Your task to perform on an android device: turn off location history Image 0: 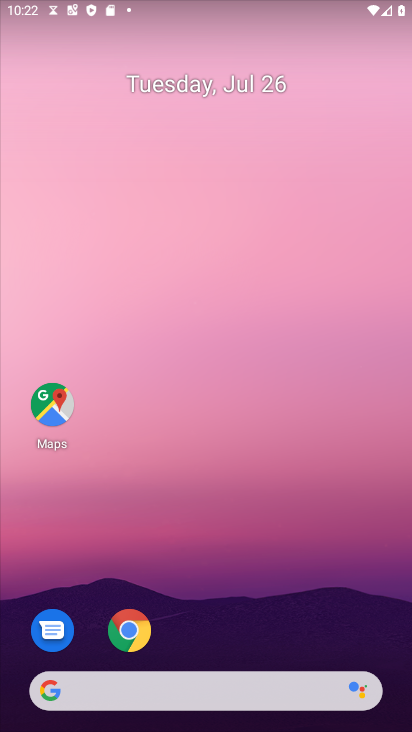
Step 0: drag from (153, 616) to (153, 29)
Your task to perform on an android device: turn off location history Image 1: 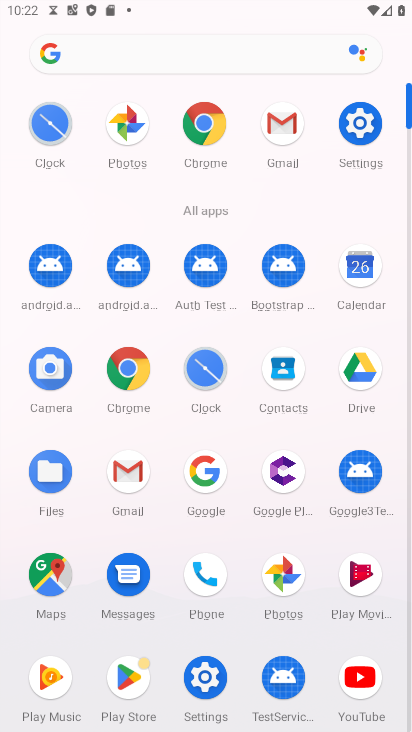
Step 1: click (360, 135)
Your task to perform on an android device: turn off location history Image 2: 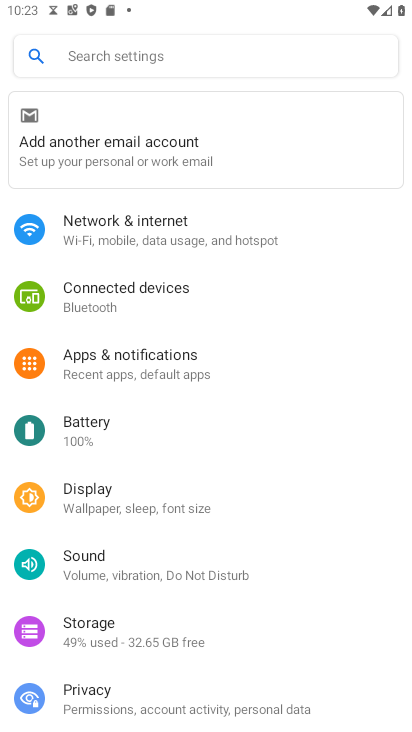
Step 2: drag from (122, 661) to (144, 459)
Your task to perform on an android device: turn off location history Image 3: 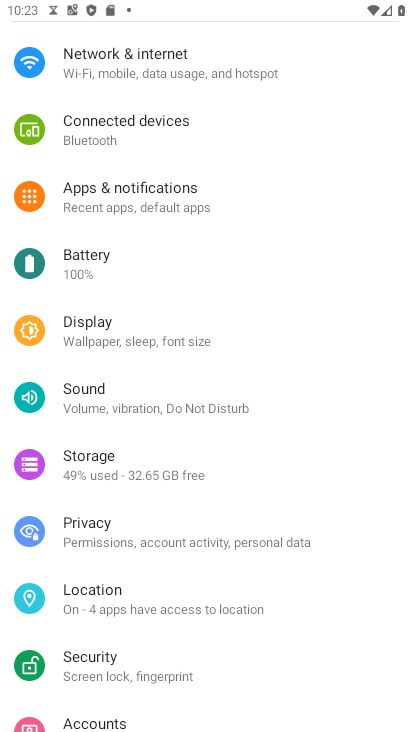
Step 3: click (75, 602)
Your task to perform on an android device: turn off location history Image 4: 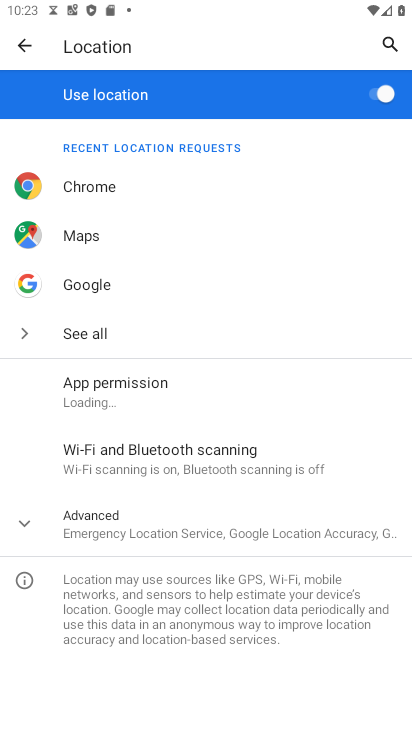
Step 4: click (110, 526)
Your task to perform on an android device: turn off location history Image 5: 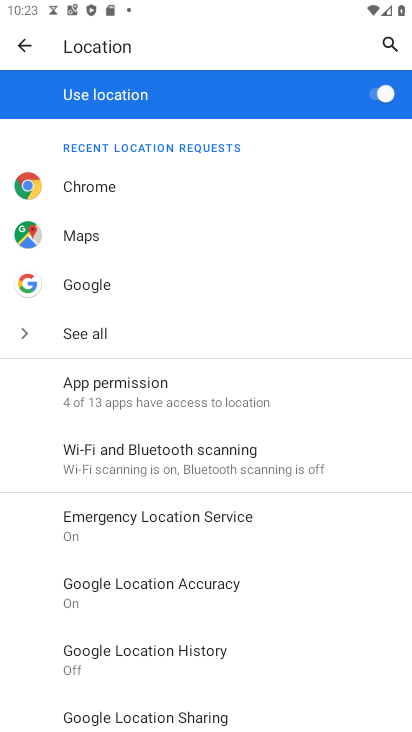
Step 5: click (105, 666)
Your task to perform on an android device: turn off location history Image 6: 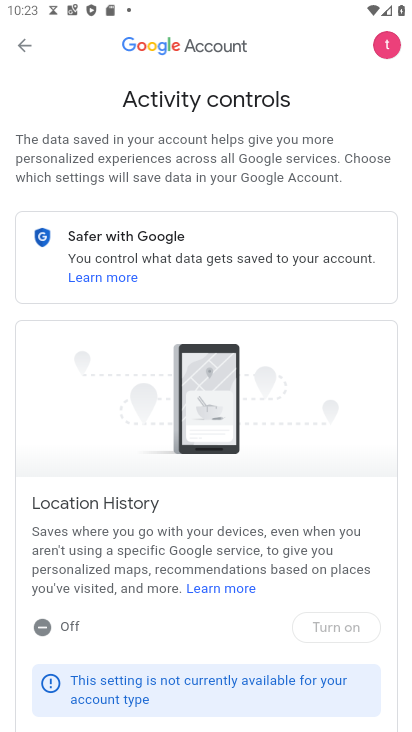
Step 6: task complete